Your task to perform on an android device: Search for seafood restaurants on Google Maps Image 0: 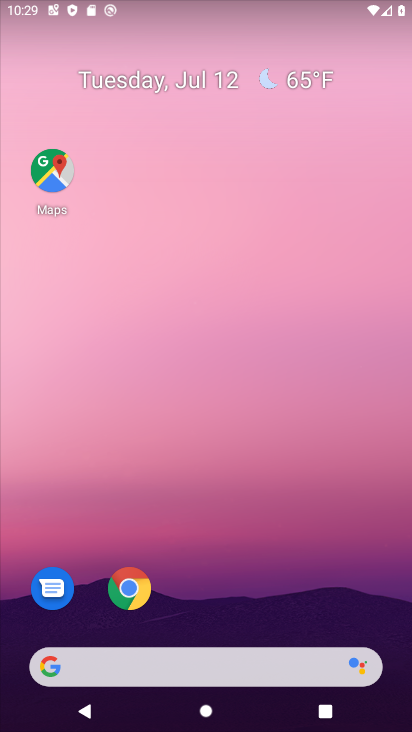
Step 0: click (43, 175)
Your task to perform on an android device: Search for seafood restaurants on Google Maps Image 1: 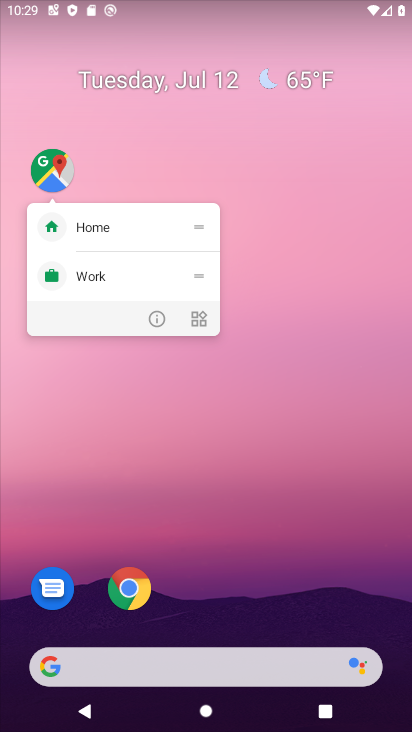
Step 1: click (62, 177)
Your task to perform on an android device: Search for seafood restaurants on Google Maps Image 2: 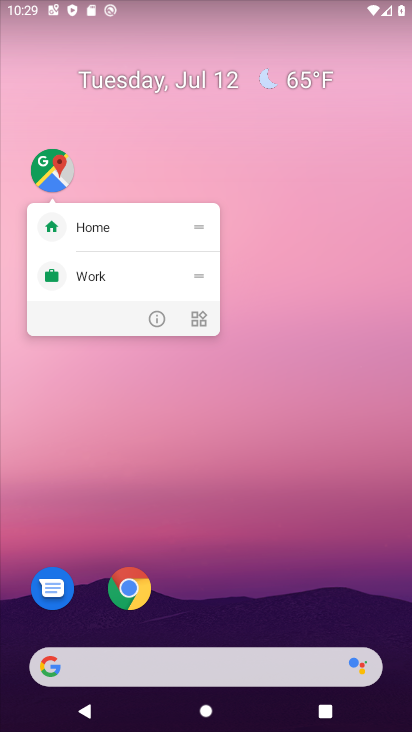
Step 2: click (58, 172)
Your task to perform on an android device: Search for seafood restaurants on Google Maps Image 3: 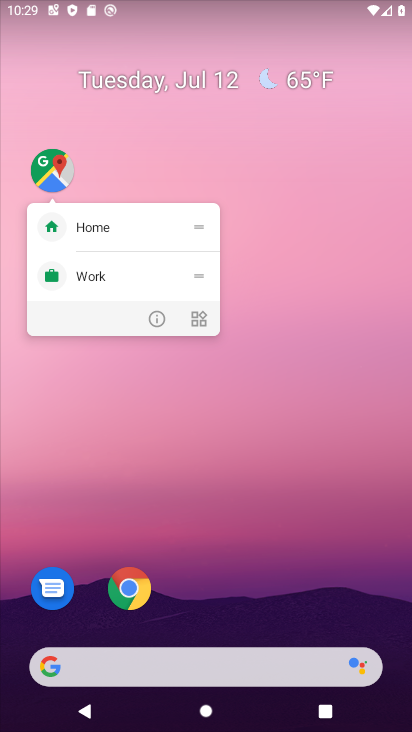
Step 3: click (40, 170)
Your task to perform on an android device: Search for seafood restaurants on Google Maps Image 4: 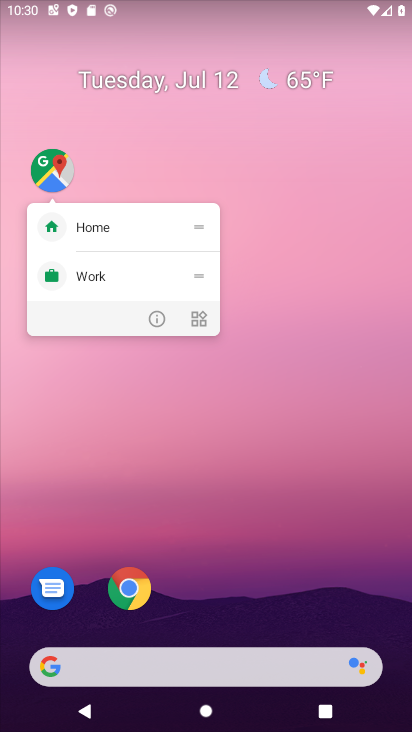
Step 4: click (40, 171)
Your task to perform on an android device: Search for seafood restaurants on Google Maps Image 5: 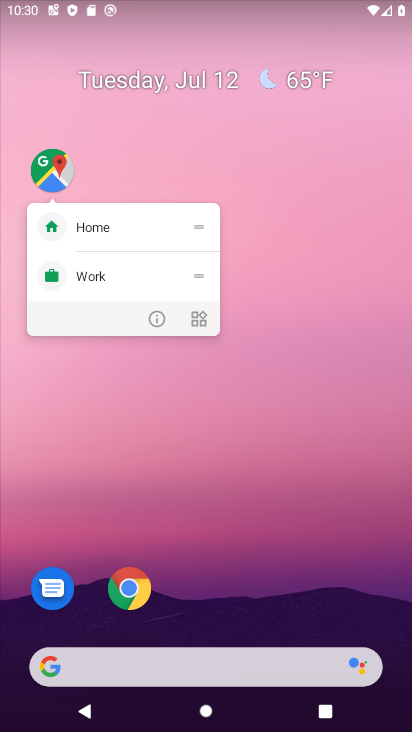
Step 5: task complete